Your task to perform on an android device: What's on my calendar tomorrow? Image 0: 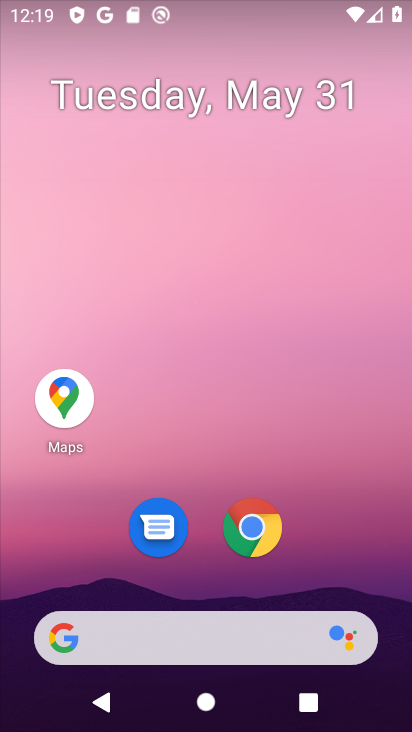
Step 0: drag from (239, 648) to (155, 181)
Your task to perform on an android device: What's on my calendar tomorrow? Image 1: 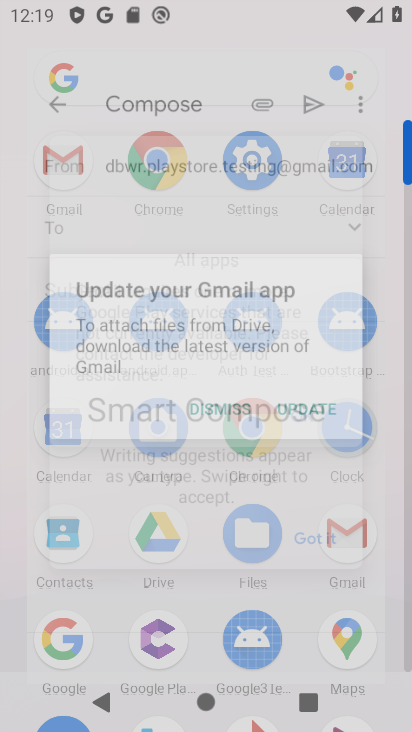
Step 1: click (52, 433)
Your task to perform on an android device: What's on my calendar tomorrow? Image 2: 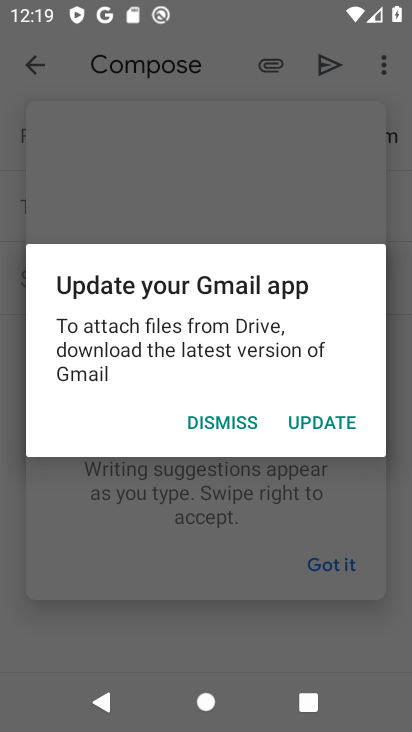
Step 2: click (53, 430)
Your task to perform on an android device: What's on my calendar tomorrow? Image 3: 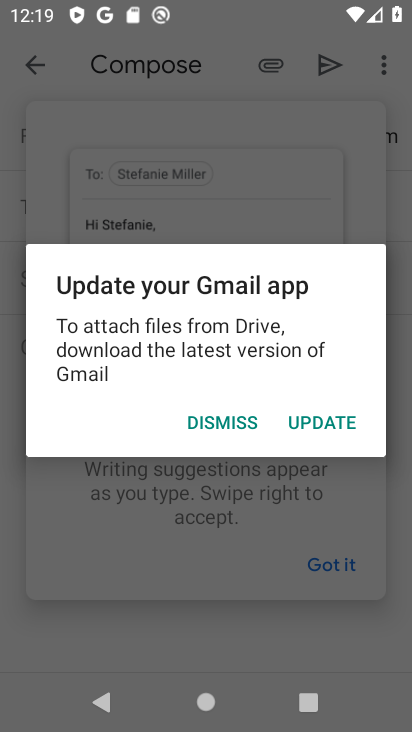
Step 3: click (224, 421)
Your task to perform on an android device: What's on my calendar tomorrow? Image 4: 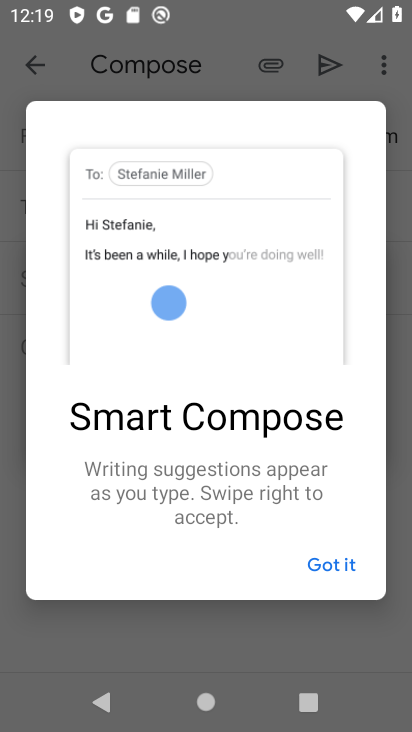
Step 4: click (340, 564)
Your task to perform on an android device: What's on my calendar tomorrow? Image 5: 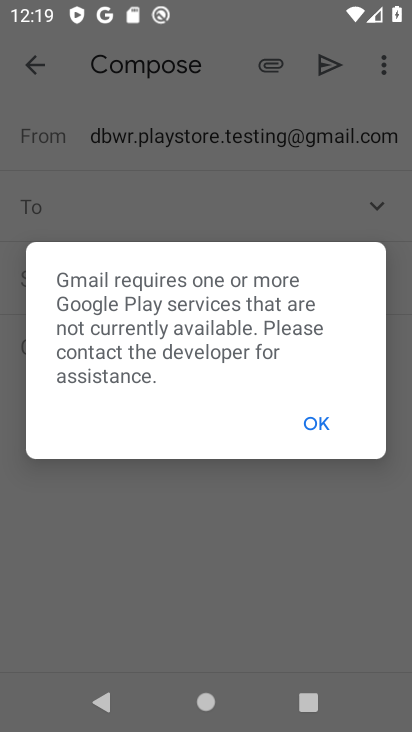
Step 5: click (318, 424)
Your task to perform on an android device: What's on my calendar tomorrow? Image 6: 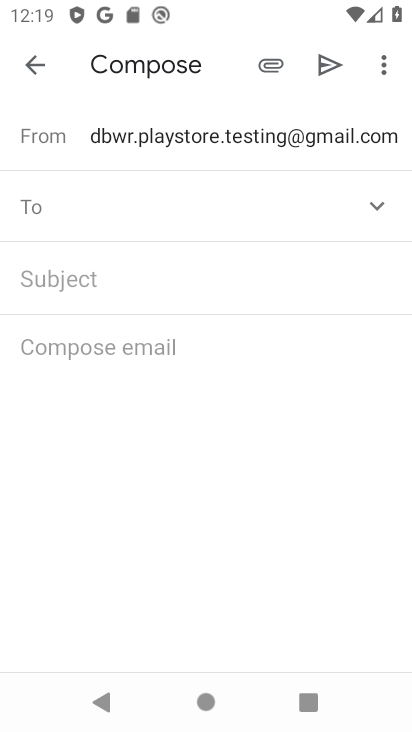
Step 6: click (35, 69)
Your task to perform on an android device: What's on my calendar tomorrow? Image 7: 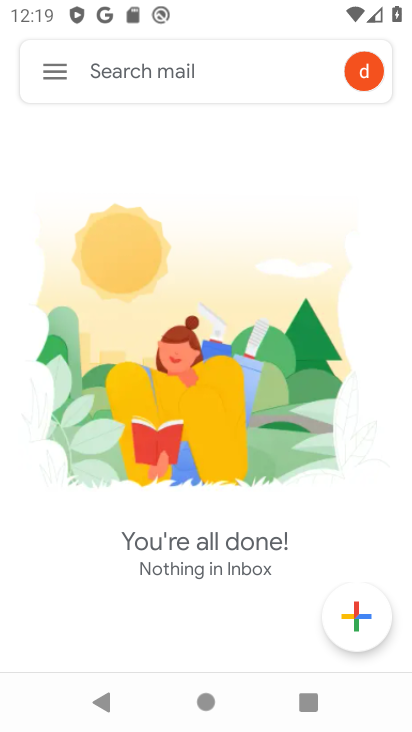
Step 7: press home button
Your task to perform on an android device: What's on my calendar tomorrow? Image 8: 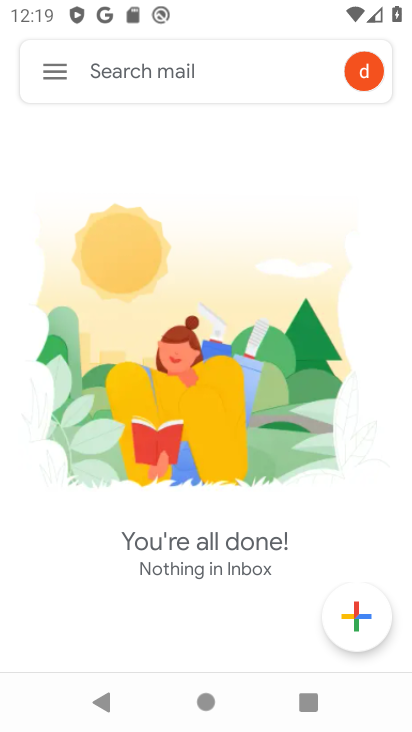
Step 8: press home button
Your task to perform on an android device: What's on my calendar tomorrow? Image 9: 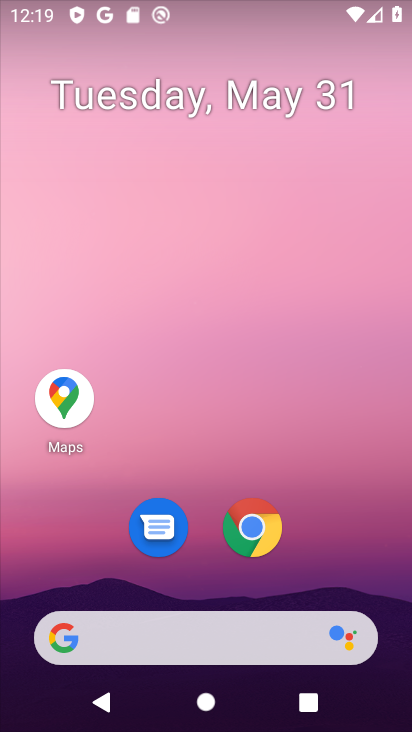
Step 9: drag from (270, 688) to (195, 151)
Your task to perform on an android device: What's on my calendar tomorrow? Image 10: 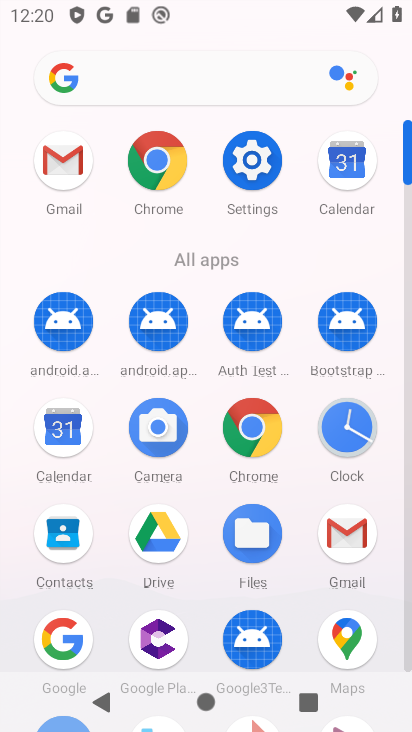
Step 10: click (55, 444)
Your task to perform on an android device: What's on my calendar tomorrow? Image 11: 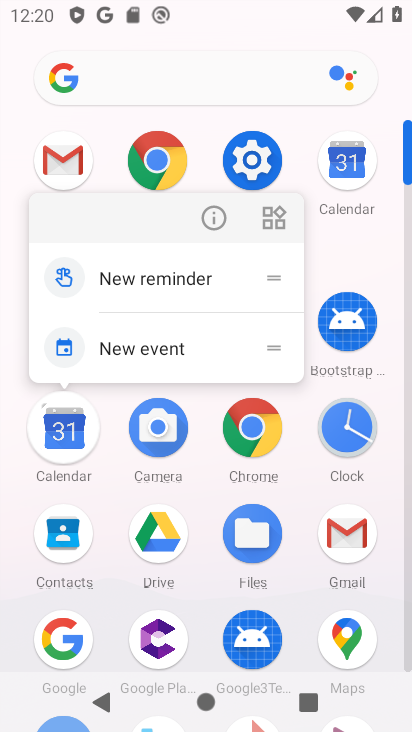
Step 11: click (55, 444)
Your task to perform on an android device: What's on my calendar tomorrow? Image 12: 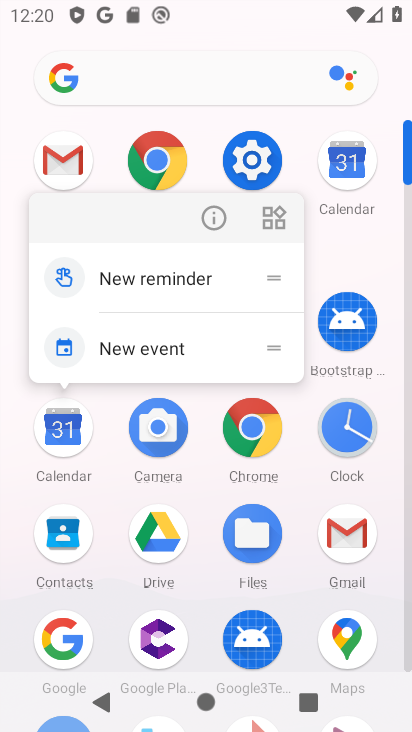
Step 12: click (57, 443)
Your task to perform on an android device: What's on my calendar tomorrow? Image 13: 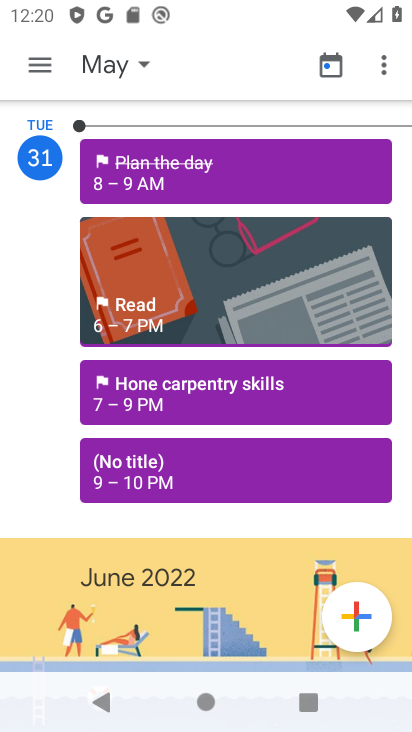
Step 13: click (146, 76)
Your task to perform on an android device: What's on my calendar tomorrow? Image 14: 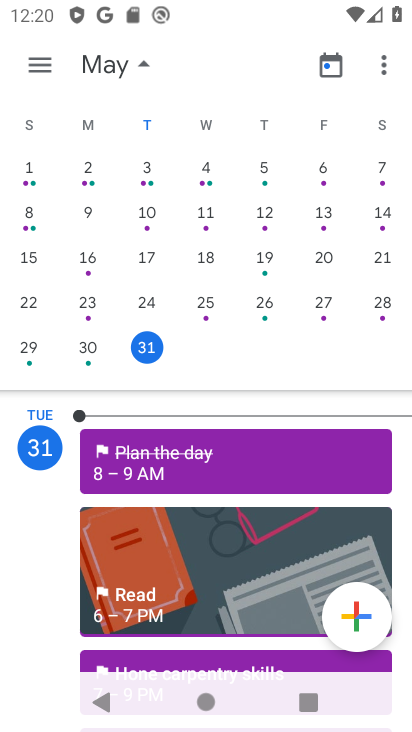
Step 14: drag from (343, 253) to (11, 354)
Your task to perform on an android device: What's on my calendar tomorrow? Image 15: 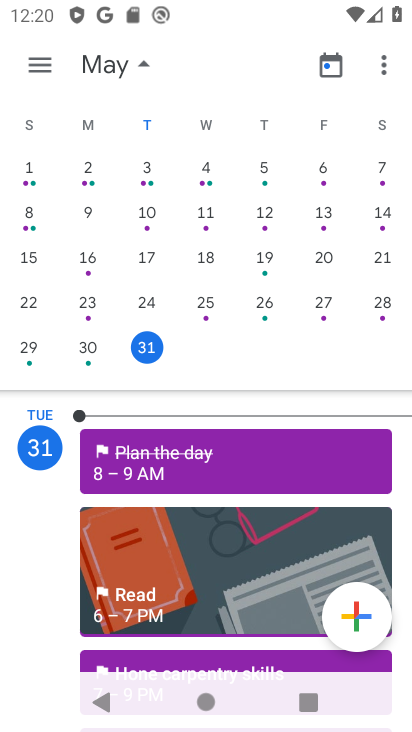
Step 15: drag from (255, 236) to (17, 228)
Your task to perform on an android device: What's on my calendar tomorrow? Image 16: 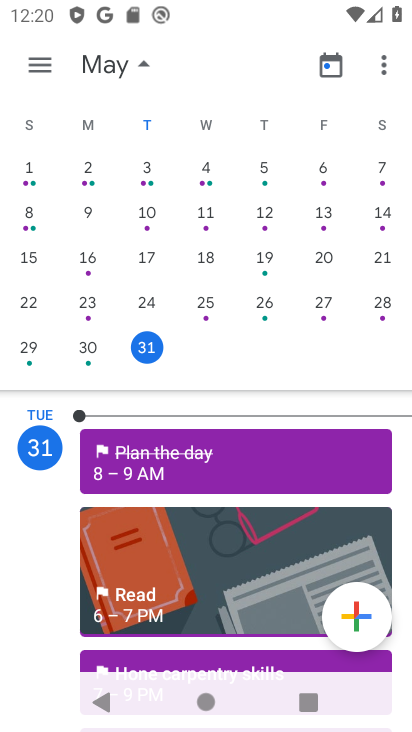
Step 16: drag from (290, 248) to (60, 382)
Your task to perform on an android device: What's on my calendar tomorrow? Image 17: 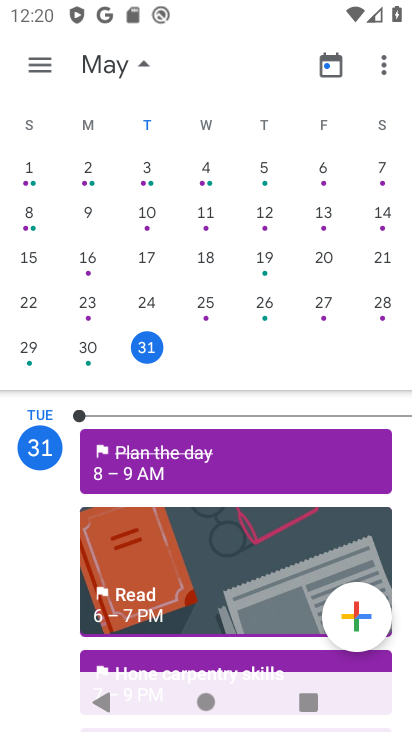
Step 17: drag from (302, 226) to (49, 360)
Your task to perform on an android device: What's on my calendar tomorrow? Image 18: 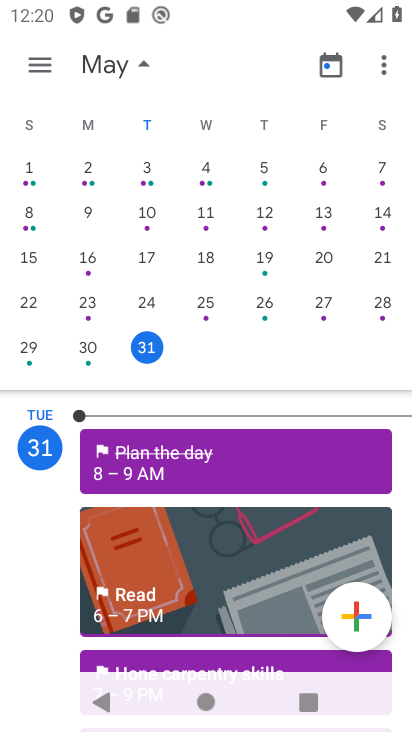
Step 18: drag from (31, 313) to (45, 278)
Your task to perform on an android device: What's on my calendar tomorrow? Image 19: 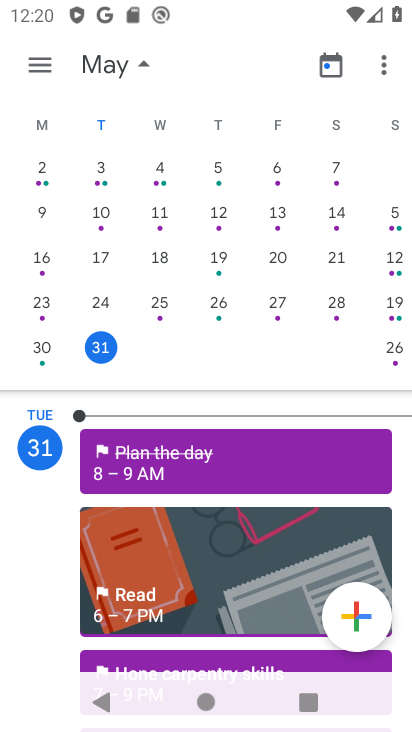
Step 19: drag from (287, 258) to (8, 336)
Your task to perform on an android device: What's on my calendar tomorrow? Image 20: 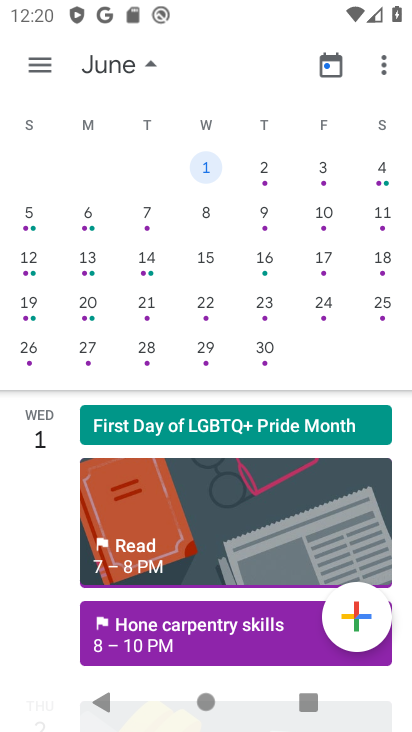
Step 20: click (214, 168)
Your task to perform on an android device: What's on my calendar tomorrow? Image 21: 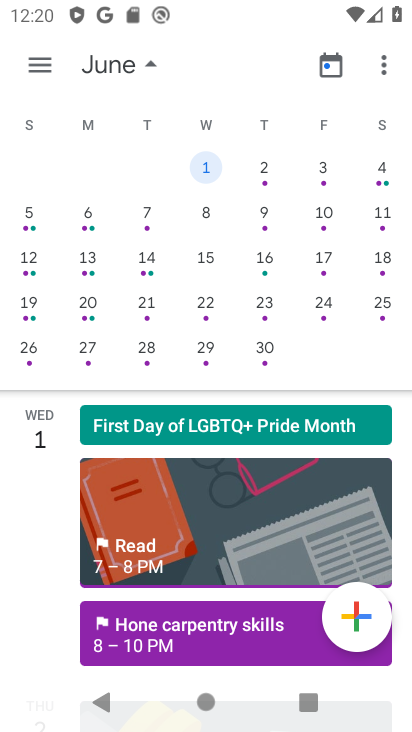
Step 21: click (210, 170)
Your task to perform on an android device: What's on my calendar tomorrow? Image 22: 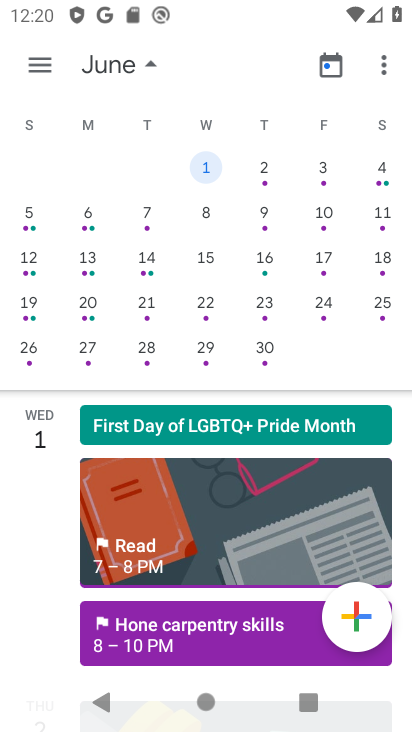
Step 22: click (210, 170)
Your task to perform on an android device: What's on my calendar tomorrow? Image 23: 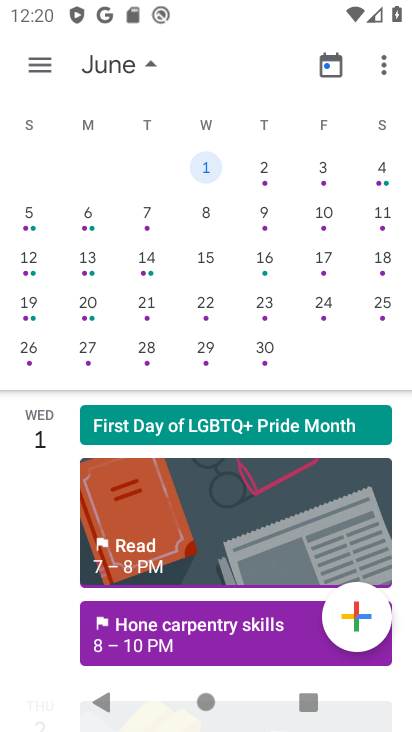
Step 23: click (210, 170)
Your task to perform on an android device: What's on my calendar tomorrow? Image 24: 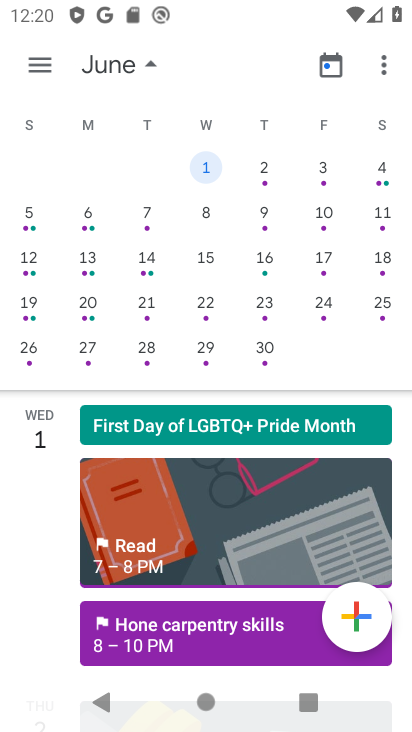
Step 24: click (213, 169)
Your task to perform on an android device: What's on my calendar tomorrow? Image 25: 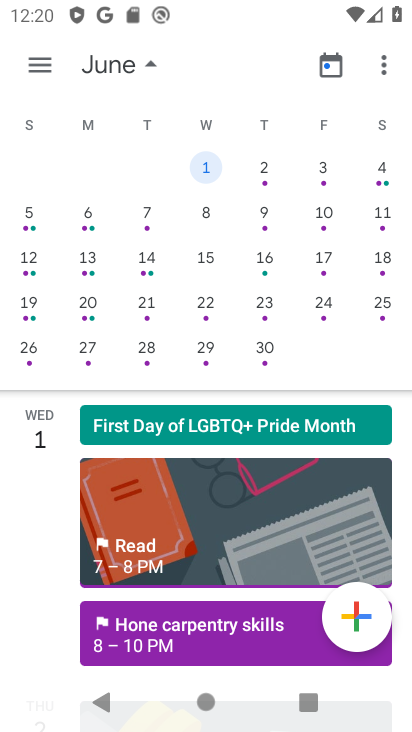
Step 25: task complete